Your task to perform on an android device: Show me popular games on the Play Store Image 0: 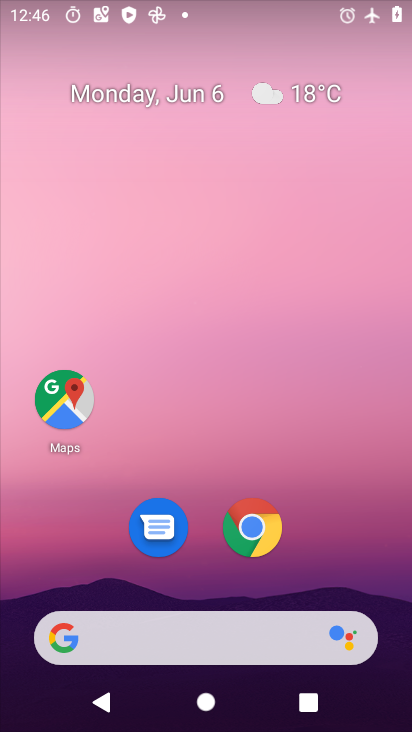
Step 0: drag from (372, 520) to (215, 31)
Your task to perform on an android device: Show me popular games on the Play Store Image 1: 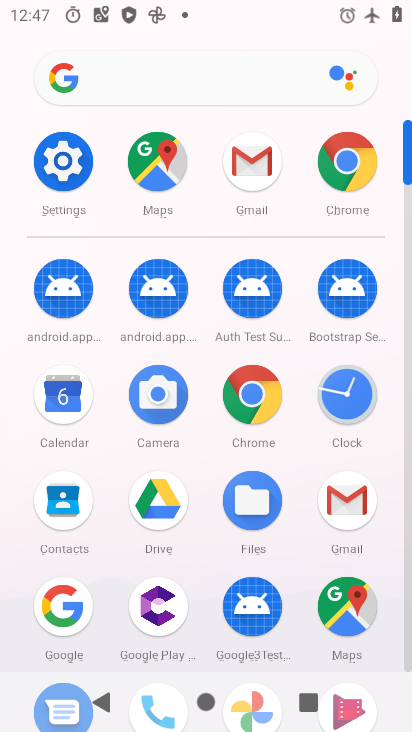
Step 1: drag from (231, 657) to (188, 191)
Your task to perform on an android device: Show me popular games on the Play Store Image 2: 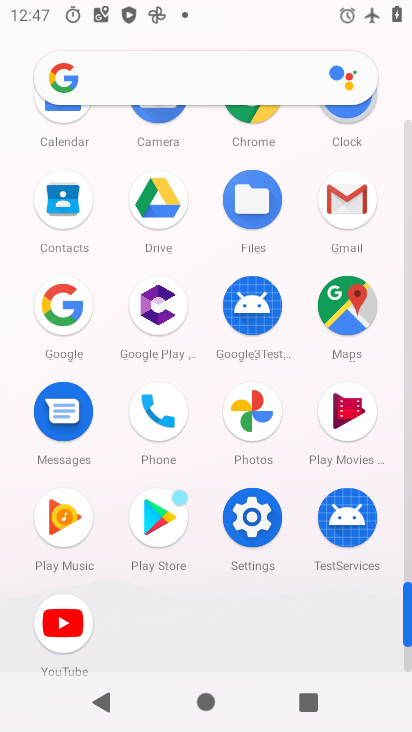
Step 2: click (152, 515)
Your task to perform on an android device: Show me popular games on the Play Store Image 3: 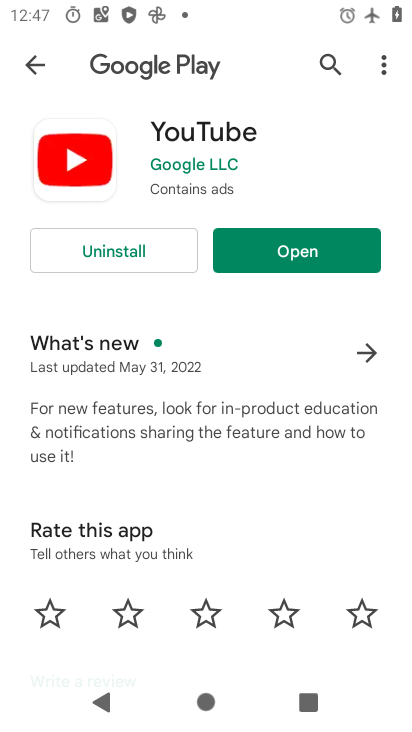
Step 3: click (26, 53)
Your task to perform on an android device: Show me popular games on the Play Store Image 4: 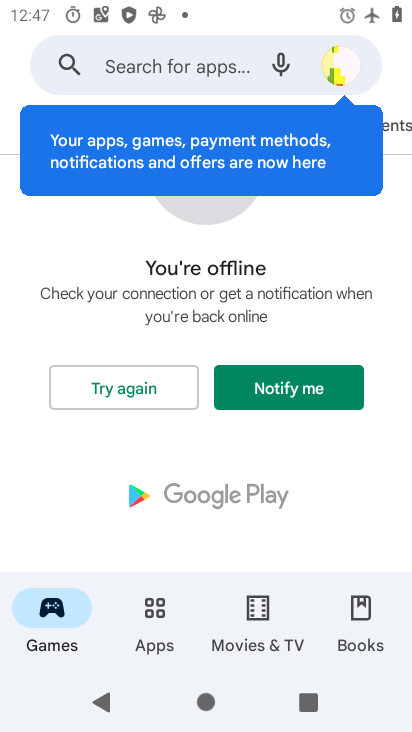
Step 4: click (57, 246)
Your task to perform on an android device: Show me popular games on the Play Store Image 5: 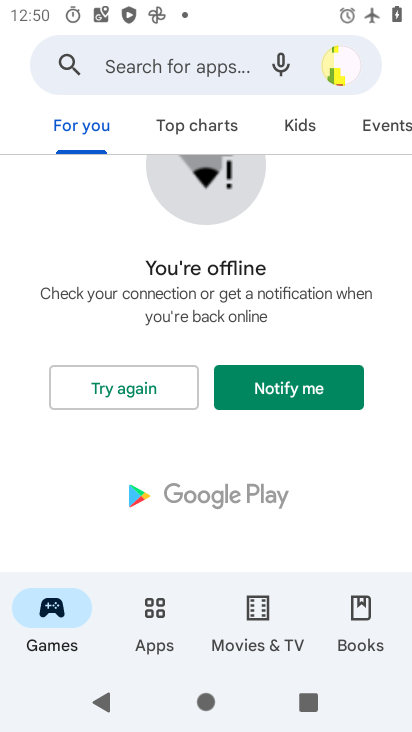
Step 5: task complete